Your task to perform on an android device: Add "beats solo 3" to the cart on ebay.com, then select checkout. Image 0: 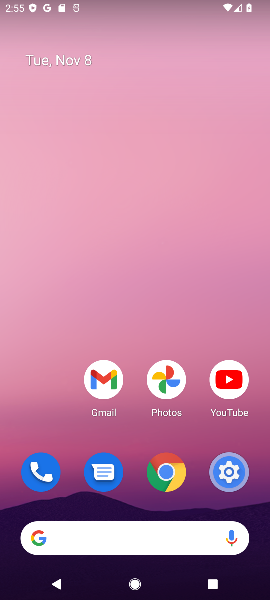
Step 0: click (134, 552)
Your task to perform on an android device: Add "beats solo 3" to the cart on ebay.com, then select checkout. Image 1: 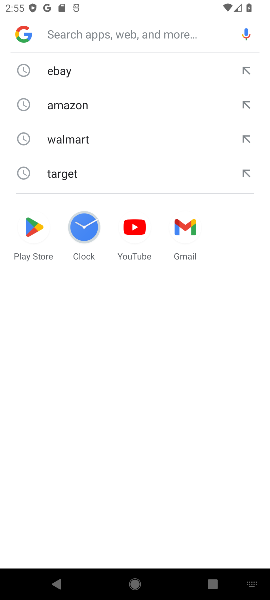
Step 1: click (91, 72)
Your task to perform on an android device: Add "beats solo 3" to the cart on ebay.com, then select checkout. Image 2: 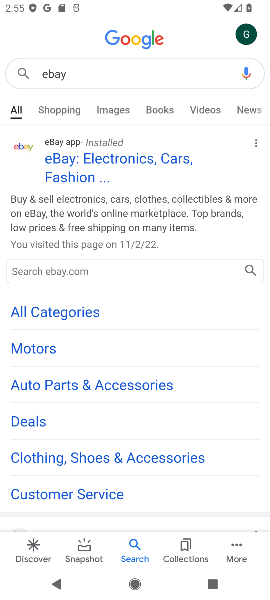
Step 2: click (94, 167)
Your task to perform on an android device: Add "beats solo 3" to the cart on ebay.com, then select checkout. Image 3: 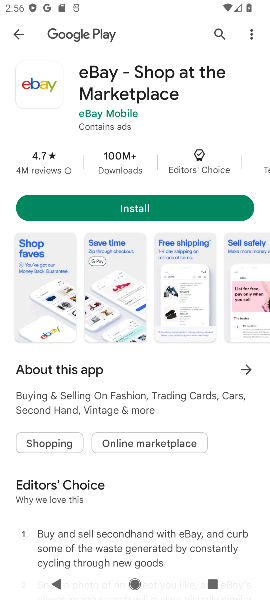
Step 3: task complete